Your task to perform on an android device: Search for the new nike air max shoes on Nike. Image 0: 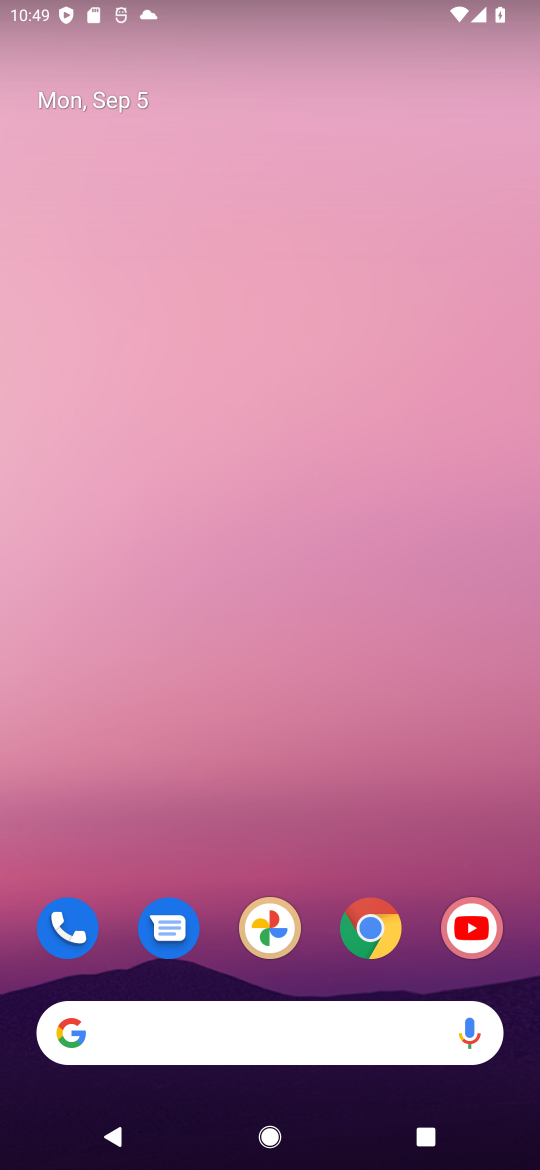
Step 0: drag from (323, 285) to (336, 110)
Your task to perform on an android device: Search for the new nike air max shoes on Nike. Image 1: 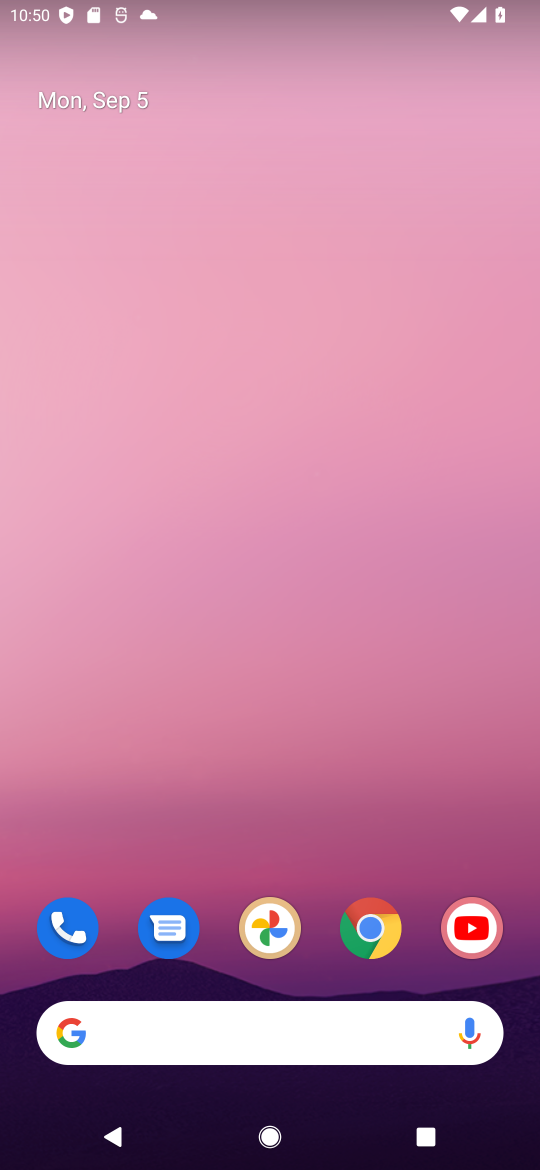
Step 1: drag from (295, 875) to (368, 182)
Your task to perform on an android device: Search for the new nike air max shoes on Nike. Image 2: 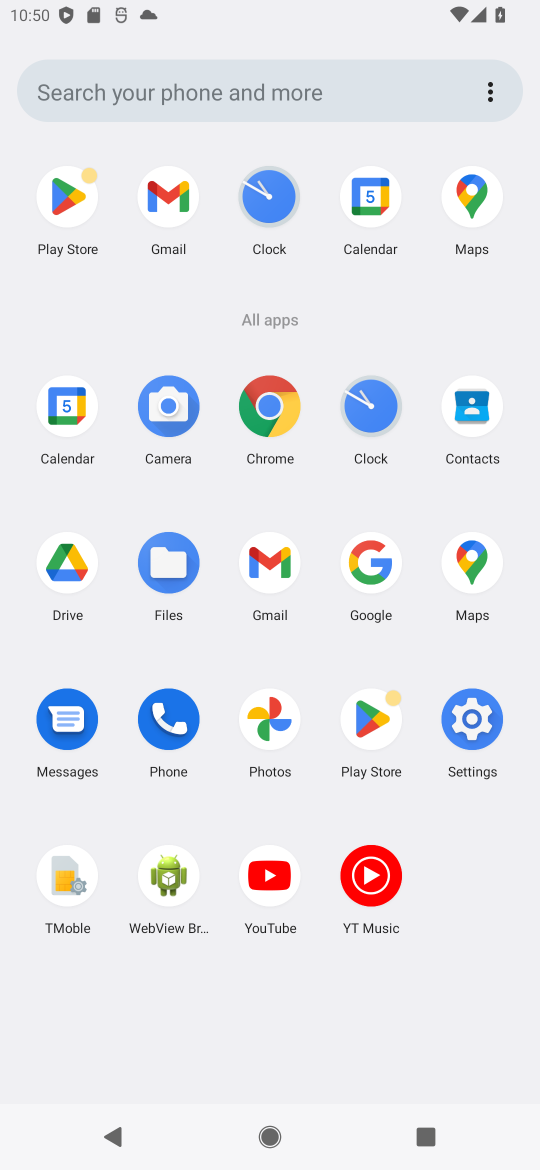
Step 2: click (275, 414)
Your task to perform on an android device: Search for the new nike air max shoes on Nike. Image 3: 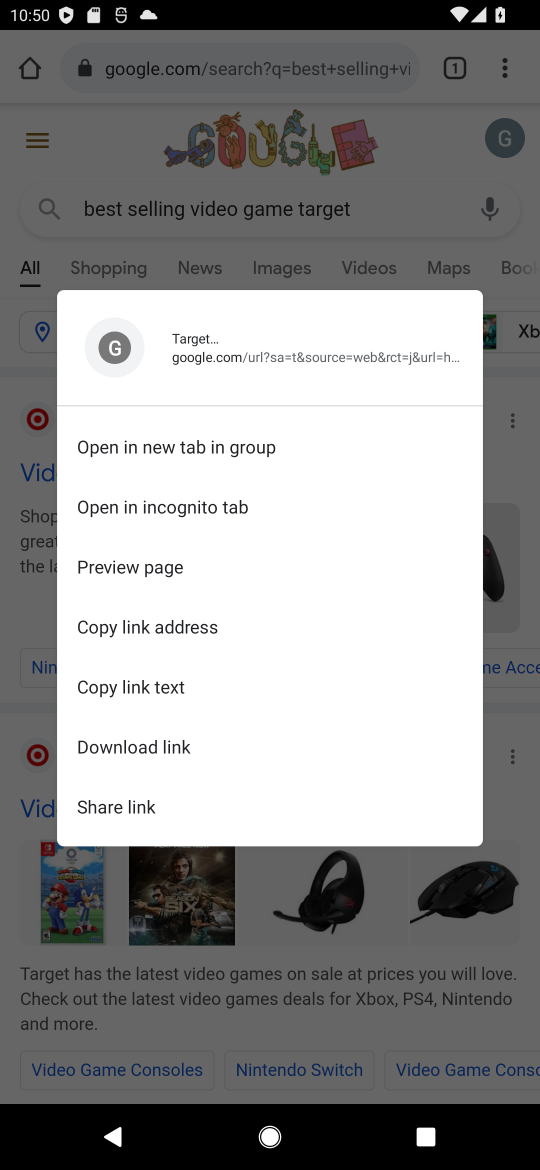
Step 3: click (292, 201)
Your task to perform on an android device: Search for the new nike air max shoes on Nike. Image 4: 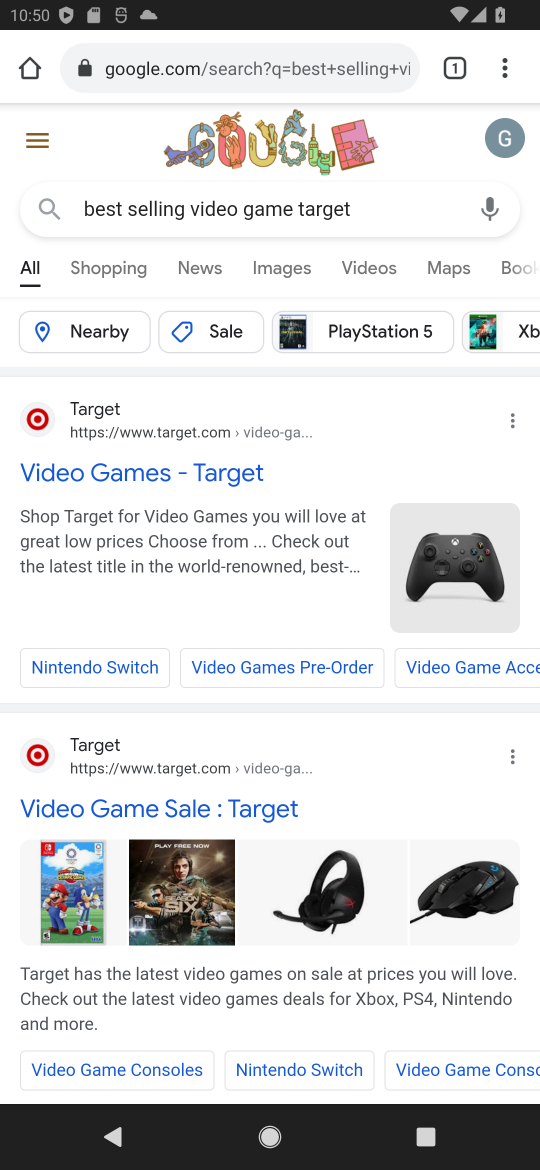
Step 4: click (266, 54)
Your task to perform on an android device: Search for the new nike air max shoes on Nike. Image 5: 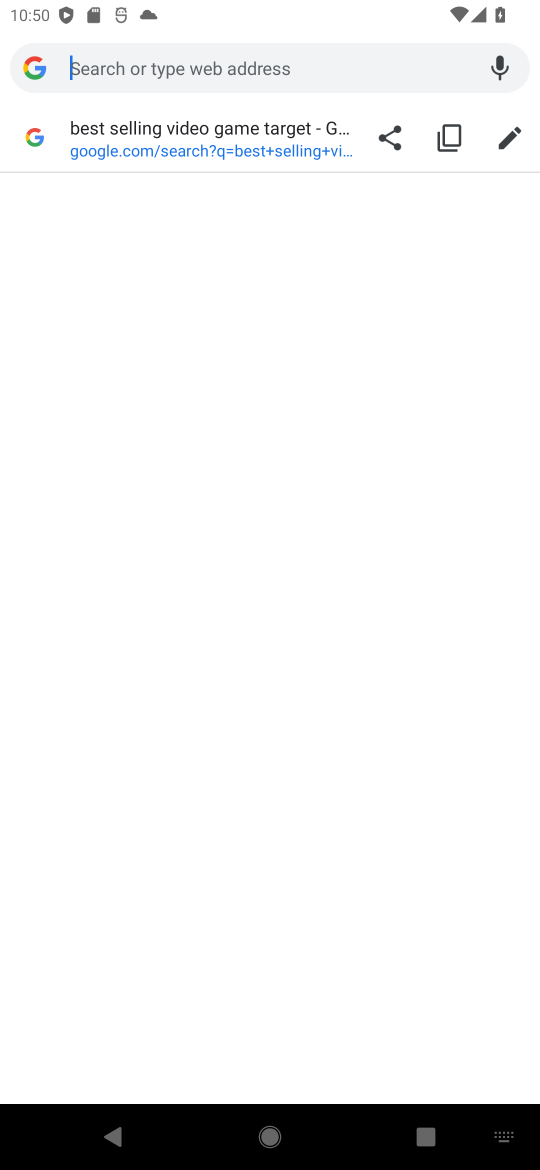
Step 5: type "new nike air mas shoes on Nike"
Your task to perform on an android device: Search for the new nike air max shoes on Nike. Image 6: 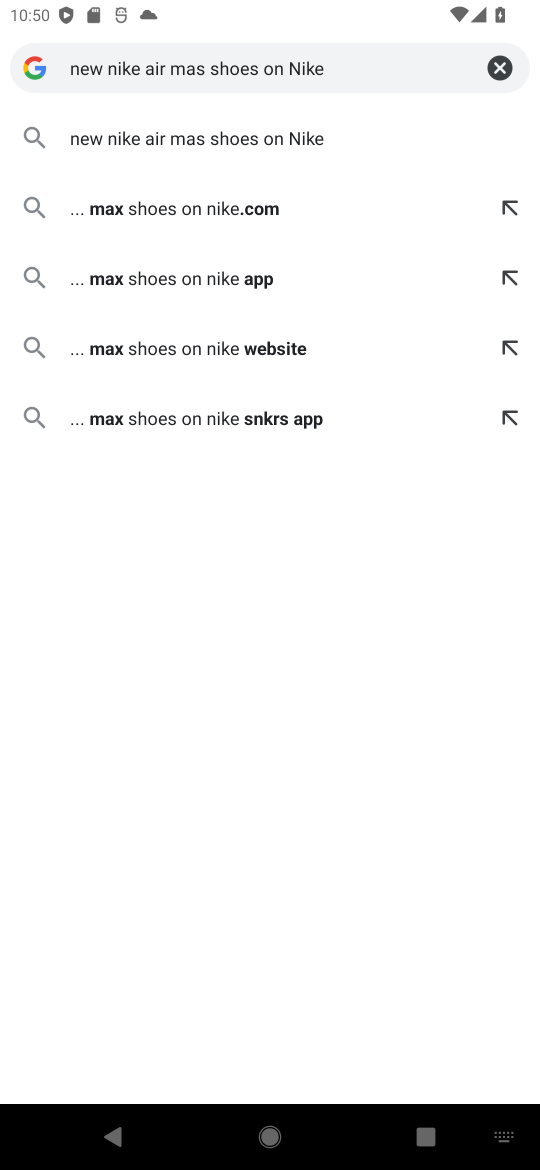
Step 6: press enter
Your task to perform on an android device: Search for the new nike air max shoes on Nike. Image 7: 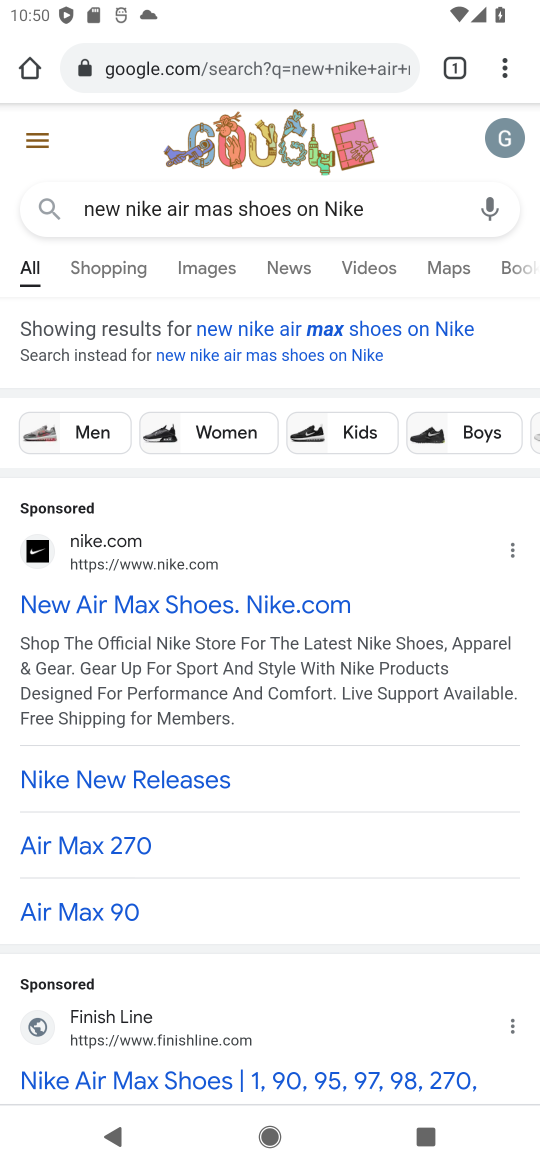
Step 7: click (148, 610)
Your task to perform on an android device: Search for the new nike air max shoes on Nike. Image 8: 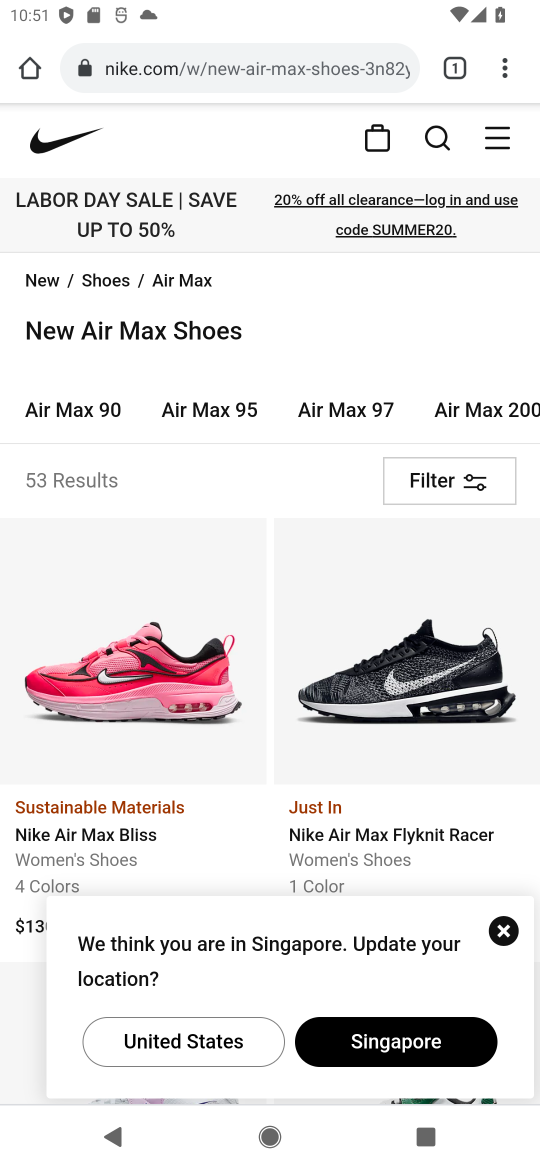
Step 8: task complete